Your task to perform on an android device: turn on priority inbox in the gmail app Image 0: 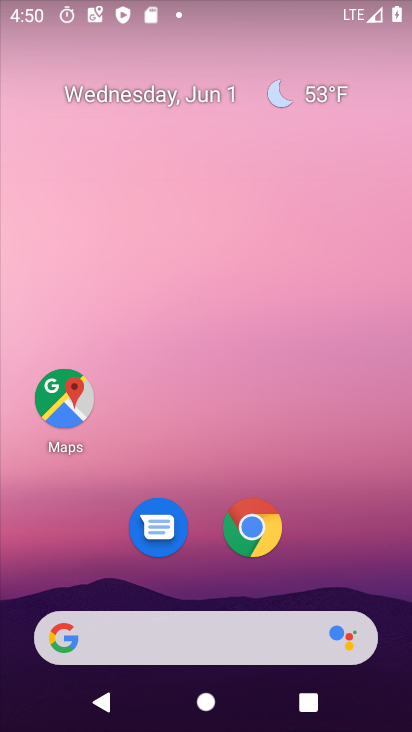
Step 0: drag from (318, 558) to (334, 75)
Your task to perform on an android device: turn on priority inbox in the gmail app Image 1: 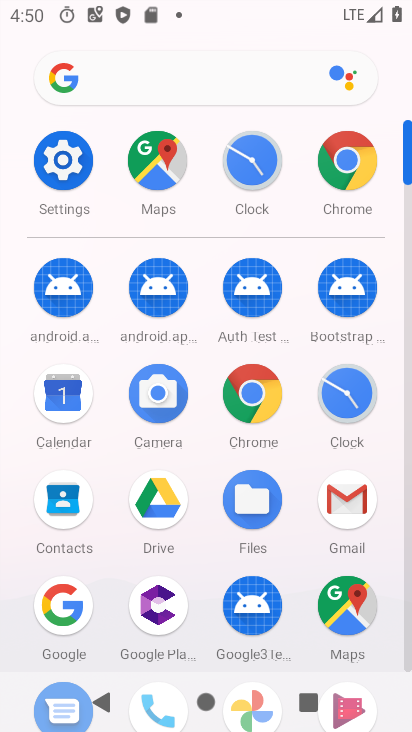
Step 1: click (352, 496)
Your task to perform on an android device: turn on priority inbox in the gmail app Image 2: 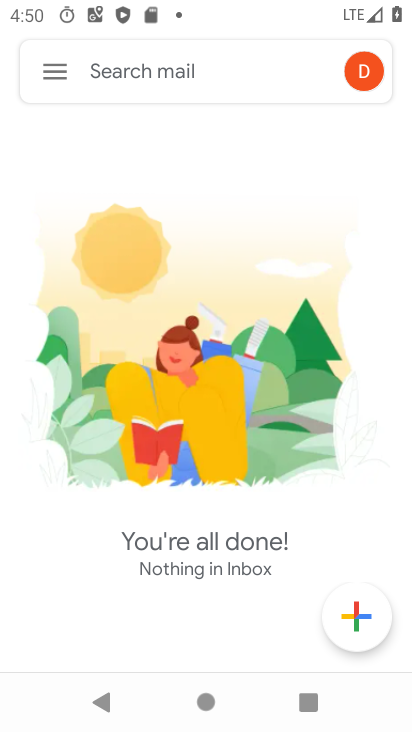
Step 2: click (43, 80)
Your task to perform on an android device: turn on priority inbox in the gmail app Image 3: 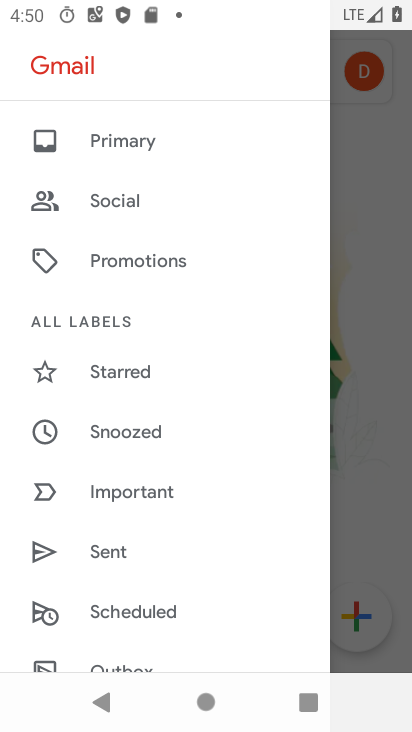
Step 3: drag from (235, 587) to (281, 175)
Your task to perform on an android device: turn on priority inbox in the gmail app Image 4: 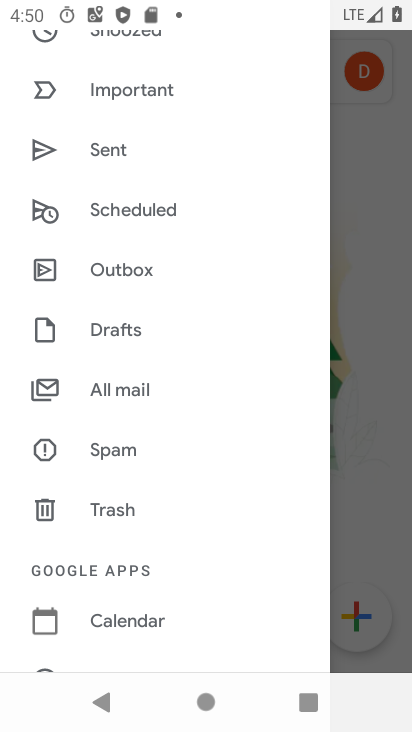
Step 4: drag from (194, 526) to (261, 76)
Your task to perform on an android device: turn on priority inbox in the gmail app Image 5: 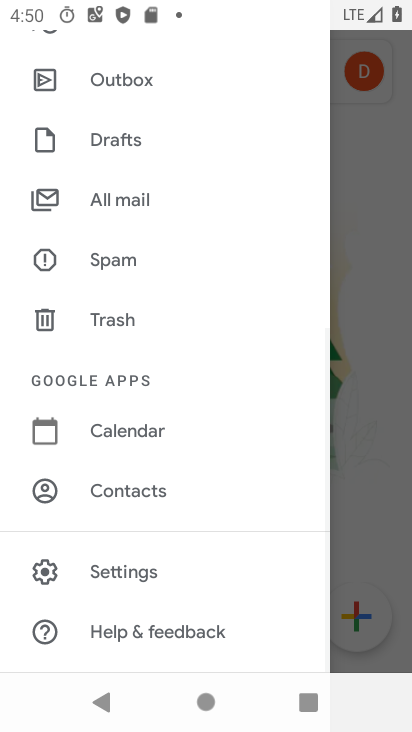
Step 5: click (115, 568)
Your task to perform on an android device: turn on priority inbox in the gmail app Image 6: 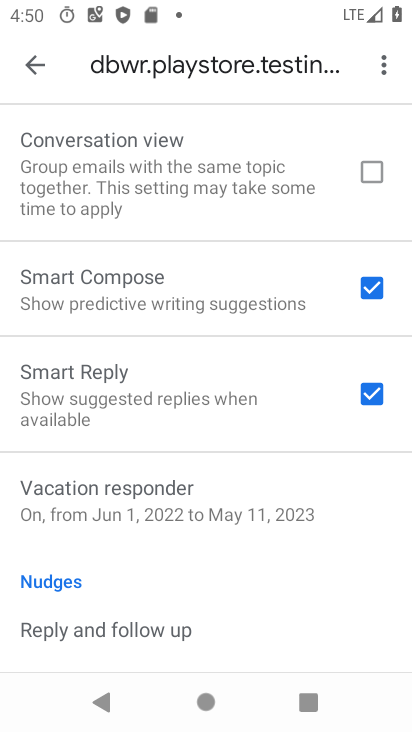
Step 6: drag from (228, 180) to (185, 566)
Your task to perform on an android device: turn on priority inbox in the gmail app Image 7: 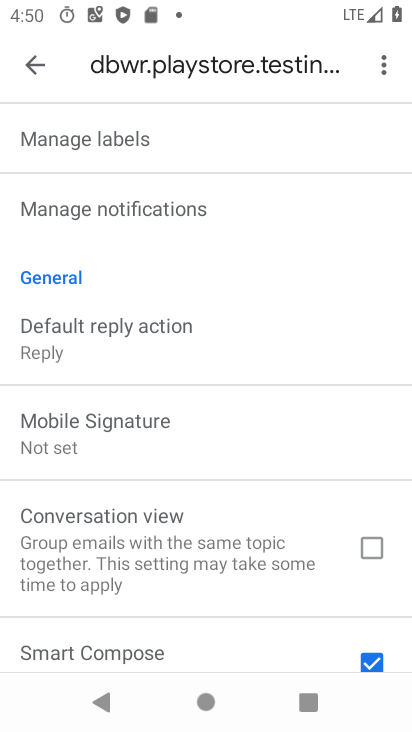
Step 7: drag from (248, 237) to (195, 567)
Your task to perform on an android device: turn on priority inbox in the gmail app Image 8: 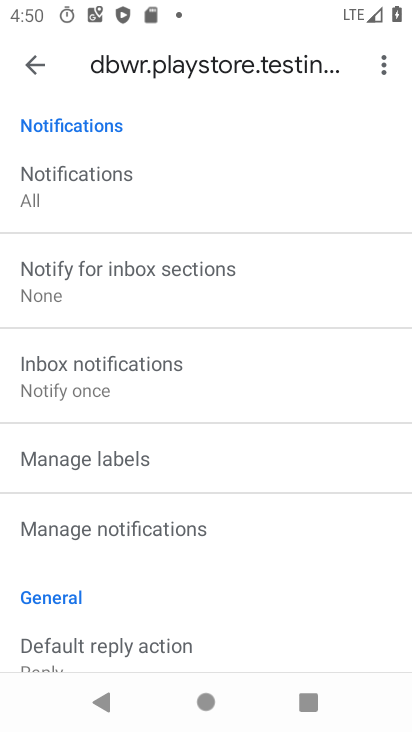
Step 8: drag from (189, 227) to (147, 576)
Your task to perform on an android device: turn on priority inbox in the gmail app Image 9: 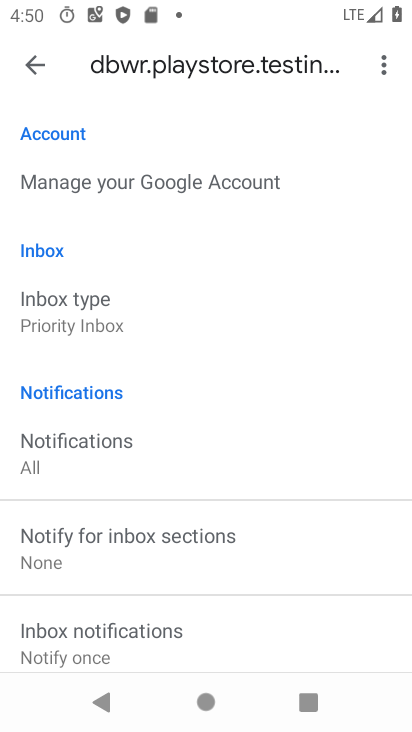
Step 9: click (58, 322)
Your task to perform on an android device: turn on priority inbox in the gmail app Image 10: 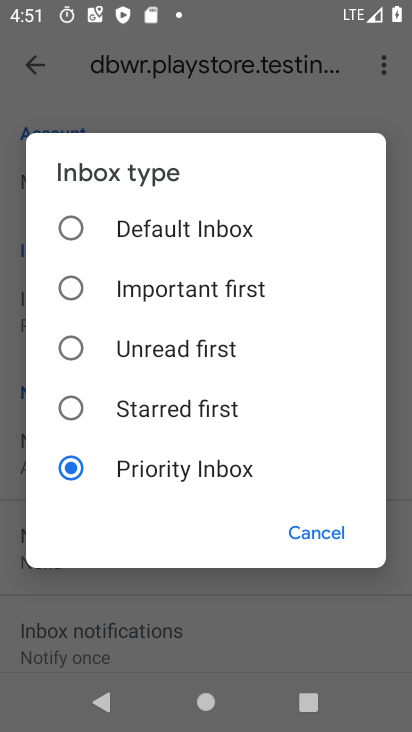
Step 10: task complete